Your task to perform on an android device: turn notification dots on Image 0: 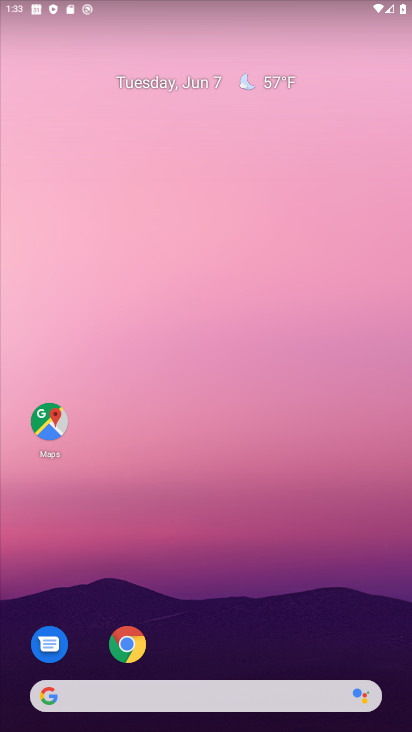
Step 0: click (122, 147)
Your task to perform on an android device: turn notification dots on Image 1: 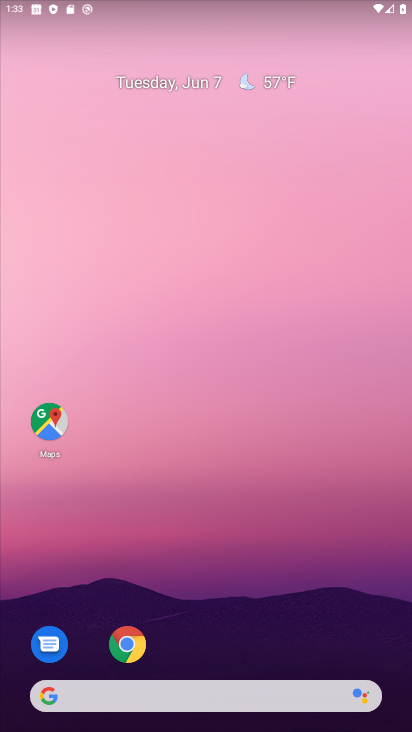
Step 1: drag from (177, 104) to (182, 18)
Your task to perform on an android device: turn notification dots on Image 2: 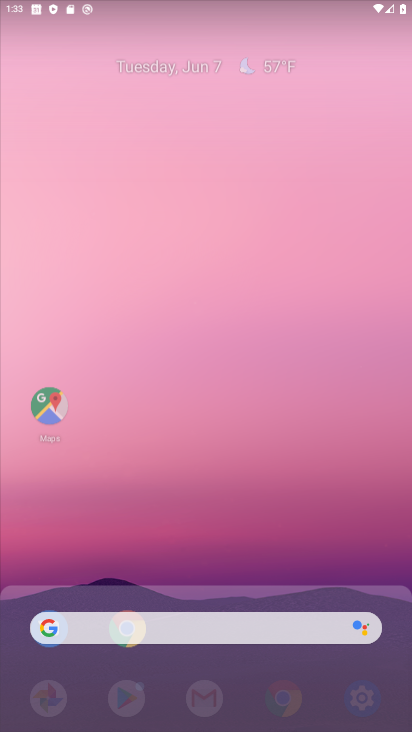
Step 2: drag from (229, 566) to (202, 9)
Your task to perform on an android device: turn notification dots on Image 3: 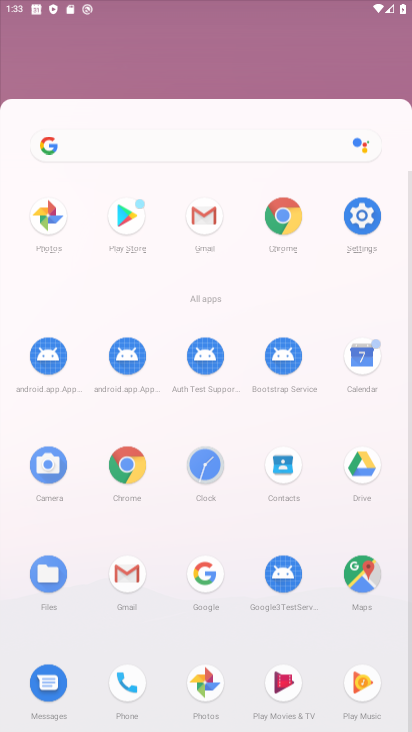
Step 3: drag from (252, 427) to (191, 14)
Your task to perform on an android device: turn notification dots on Image 4: 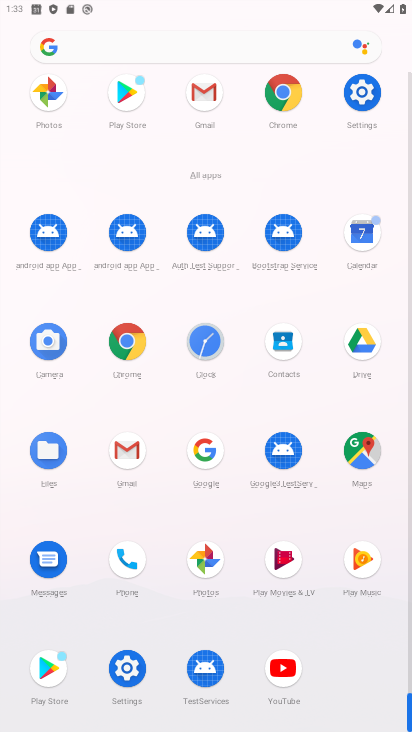
Step 4: click (365, 95)
Your task to perform on an android device: turn notification dots on Image 5: 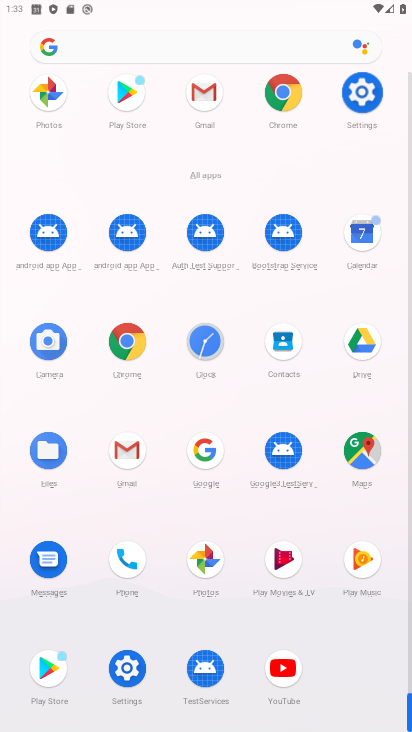
Step 5: click (361, 94)
Your task to perform on an android device: turn notification dots on Image 6: 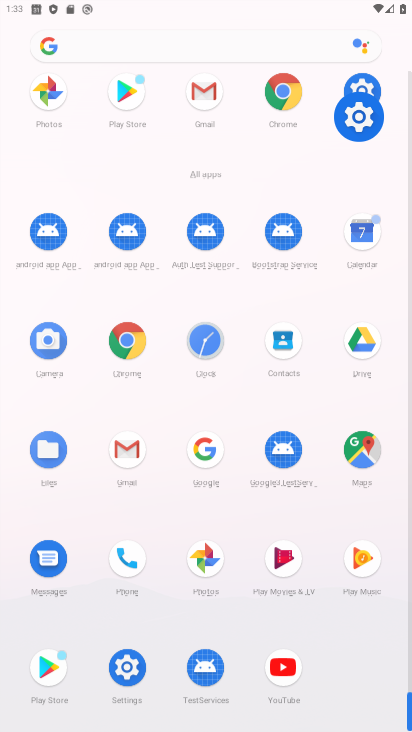
Step 6: click (359, 93)
Your task to perform on an android device: turn notification dots on Image 7: 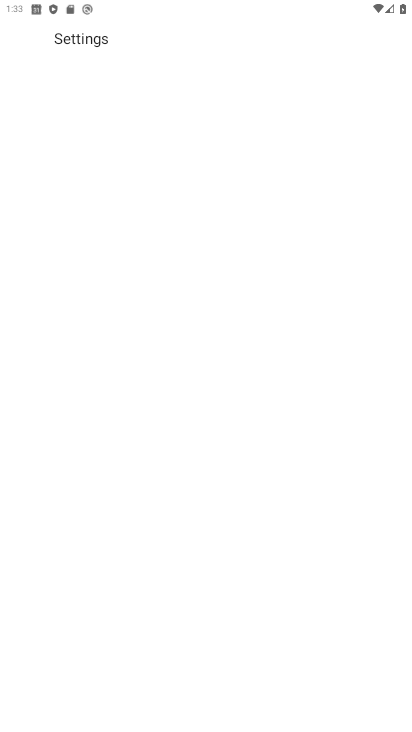
Step 7: click (356, 93)
Your task to perform on an android device: turn notification dots on Image 8: 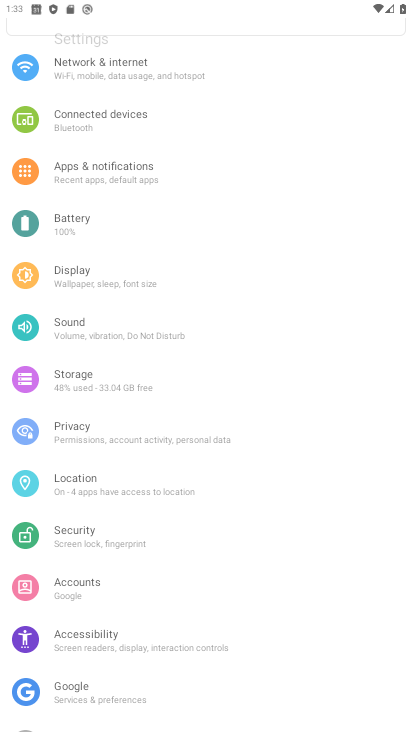
Step 8: click (355, 95)
Your task to perform on an android device: turn notification dots on Image 9: 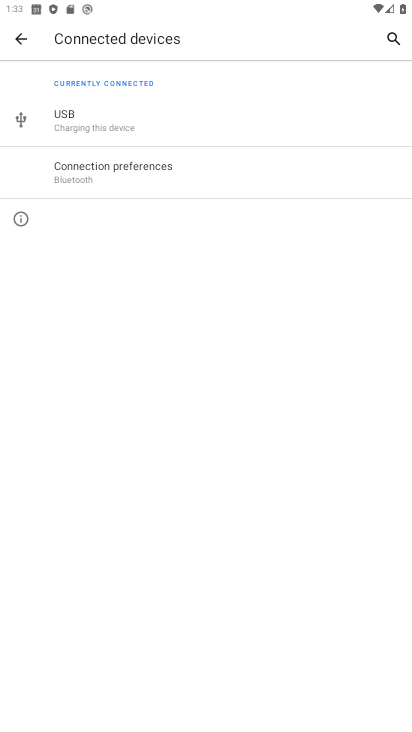
Step 9: click (16, 41)
Your task to perform on an android device: turn notification dots on Image 10: 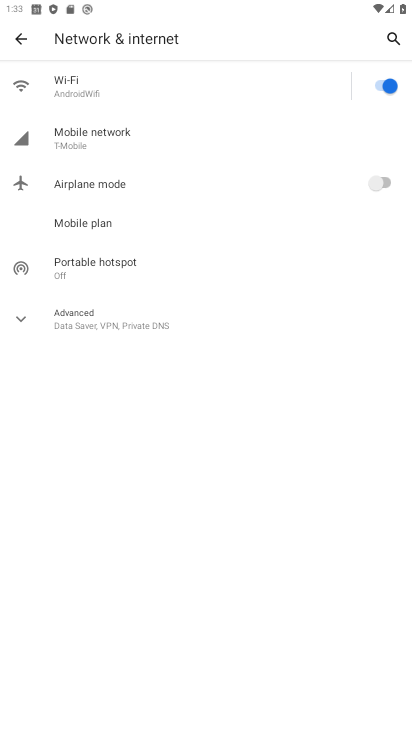
Step 10: click (22, 50)
Your task to perform on an android device: turn notification dots on Image 11: 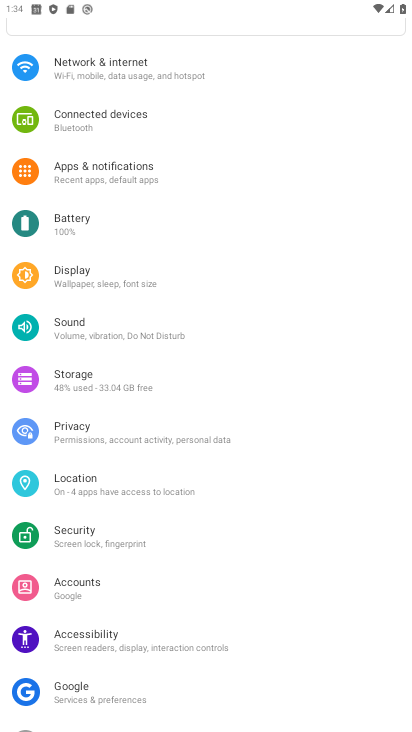
Step 11: click (92, 169)
Your task to perform on an android device: turn notification dots on Image 12: 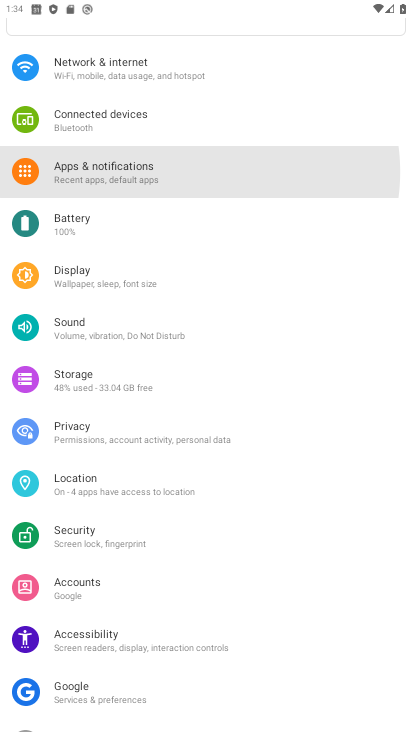
Step 12: click (91, 169)
Your task to perform on an android device: turn notification dots on Image 13: 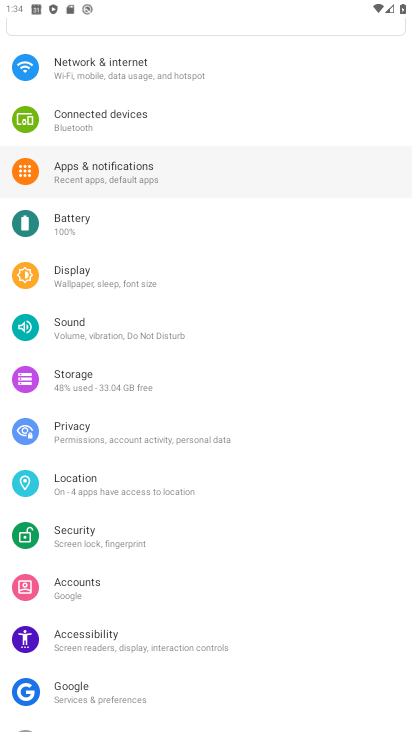
Step 13: click (94, 171)
Your task to perform on an android device: turn notification dots on Image 14: 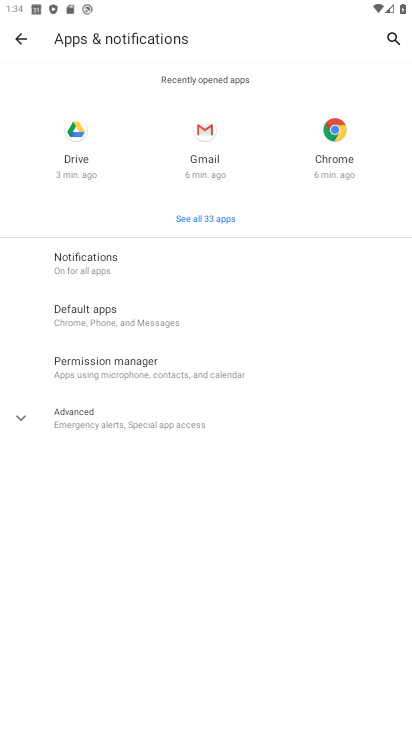
Step 14: click (80, 266)
Your task to perform on an android device: turn notification dots on Image 15: 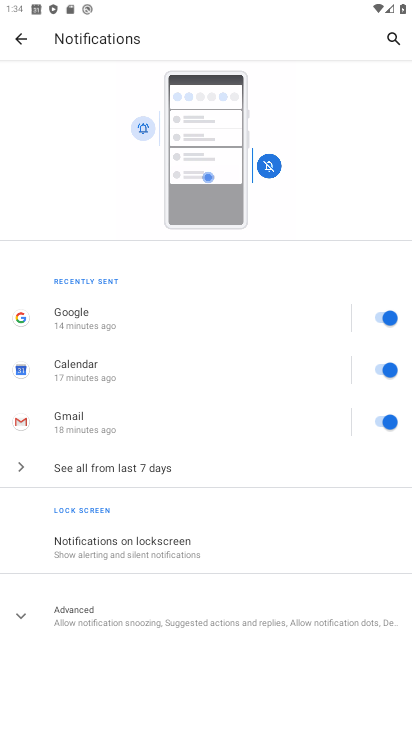
Step 15: drag from (292, 492) to (258, 120)
Your task to perform on an android device: turn notification dots on Image 16: 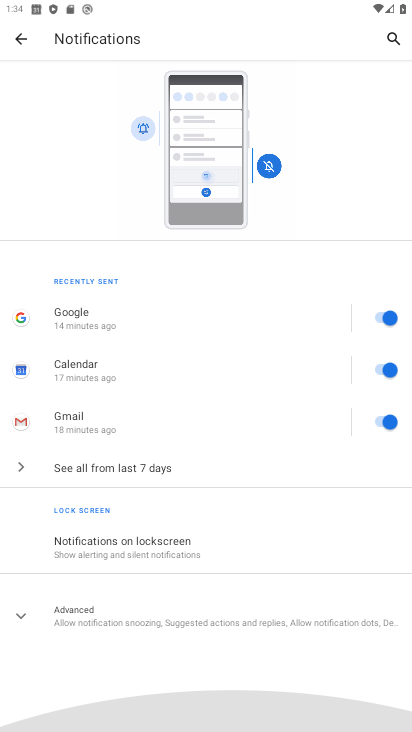
Step 16: drag from (237, 451) to (187, 164)
Your task to perform on an android device: turn notification dots on Image 17: 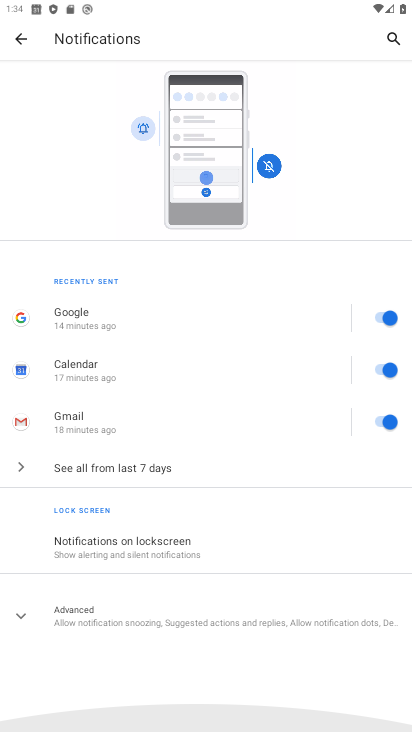
Step 17: click (115, 623)
Your task to perform on an android device: turn notification dots on Image 18: 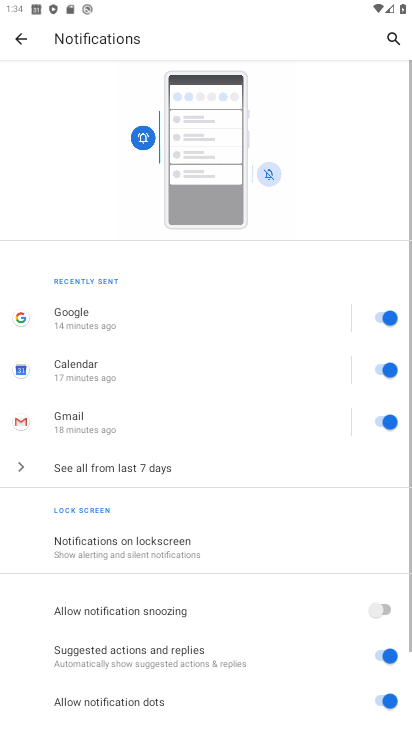
Step 18: drag from (222, 592) to (159, 152)
Your task to perform on an android device: turn notification dots on Image 19: 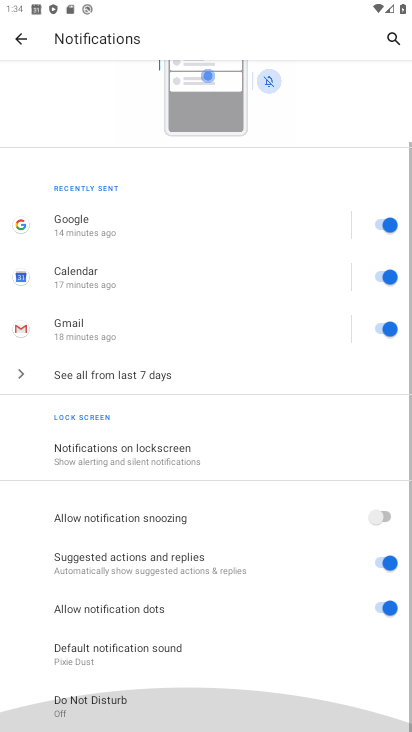
Step 19: drag from (210, 403) to (177, 60)
Your task to perform on an android device: turn notification dots on Image 20: 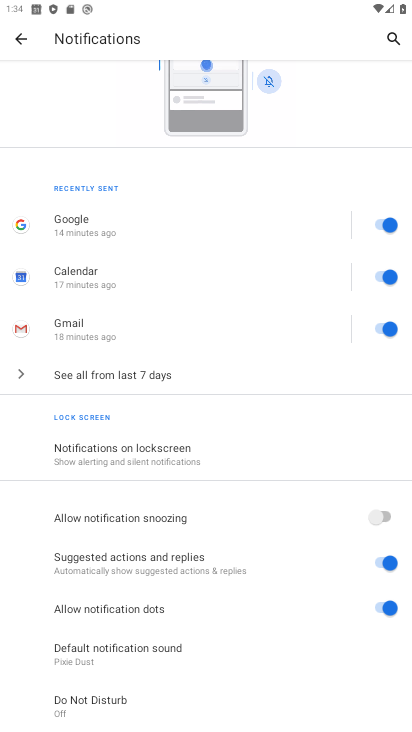
Step 20: click (386, 611)
Your task to perform on an android device: turn notification dots on Image 21: 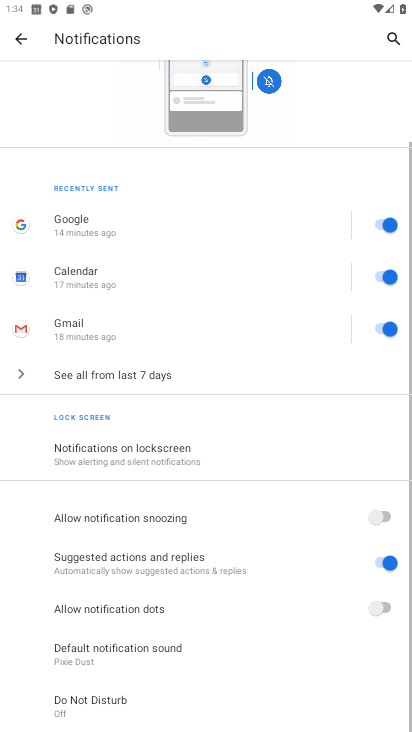
Step 21: click (386, 611)
Your task to perform on an android device: turn notification dots on Image 22: 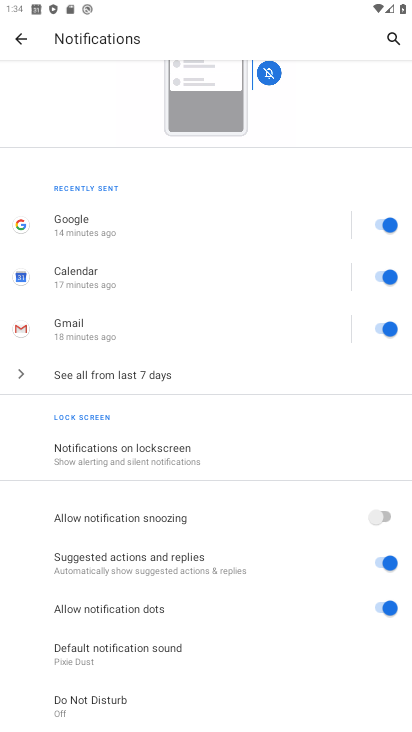
Step 22: task complete